Your task to perform on an android device: toggle priority inbox in the gmail app Image 0: 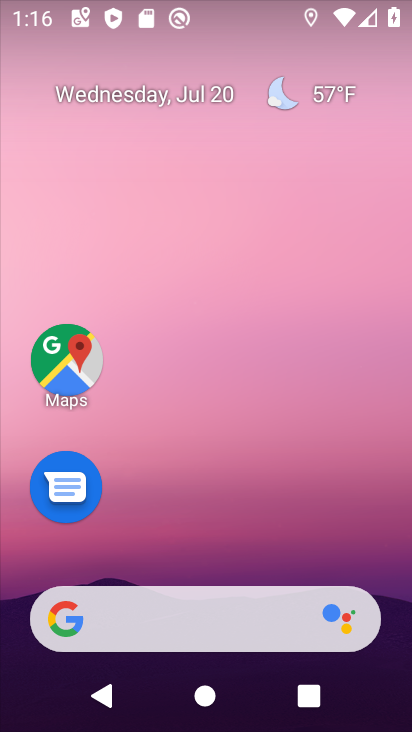
Step 0: drag from (177, 564) to (350, 5)
Your task to perform on an android device: toggle priority inbox in the gmail app Image 1: 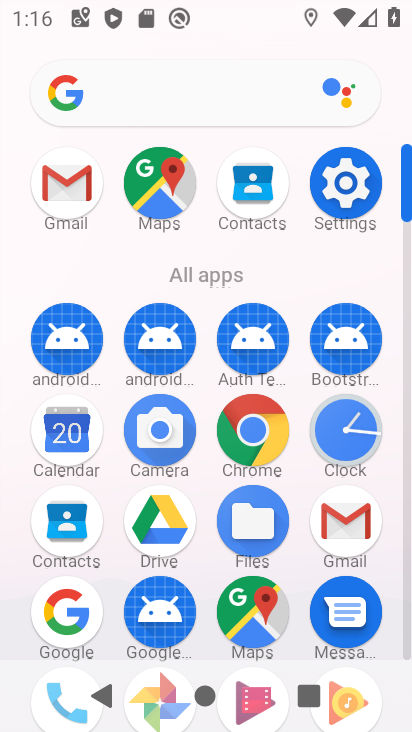
Step 1: click (61, 189)
Your task to perform on an android device: toggle priority inbox in the gmail app Image 2: 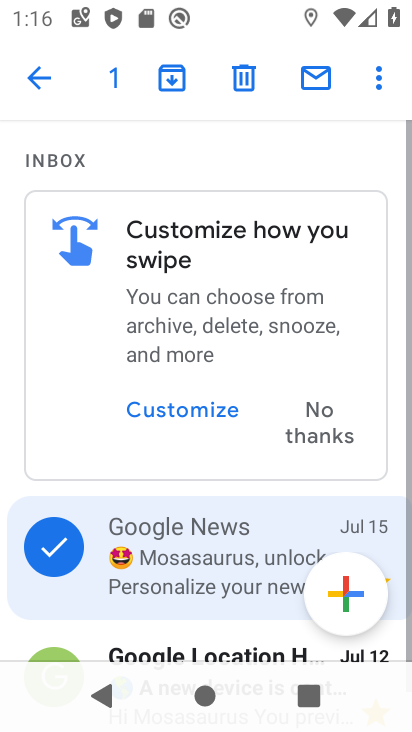
Step 2: click (34, 77)
Your task to perform on an android device: toggle priority inbox in the gmail app Image 3: 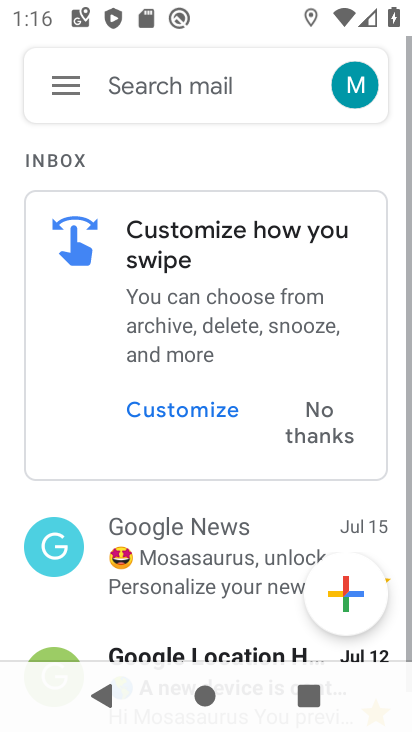
Step 3: click (55, 84)
Your task to perform on an android device: toggle priority inbox in the gmail app Image 4: 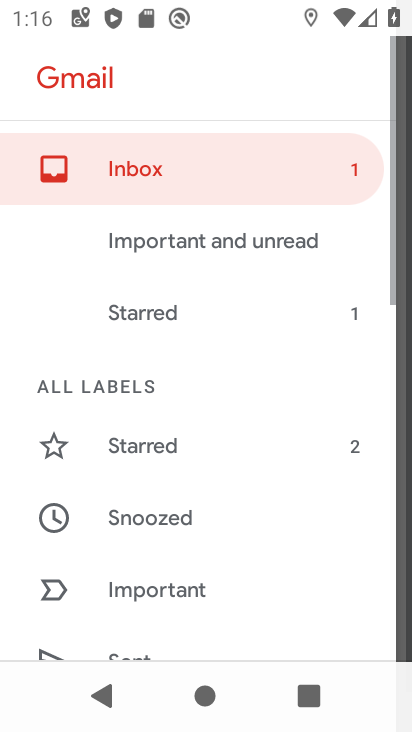
Step 4: drag from (182, 588) to (263, 3)
Your task to perform on an android device: toggle priority inbox in the gmail app Image 5: 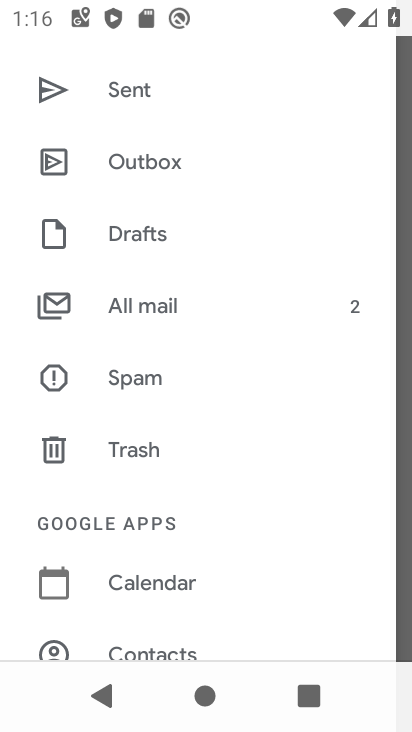
Step 5: drag from (182, 610) to (265, 92)
Your task to perform on an android device: toggle priority inbox in the gmail app Image 6: 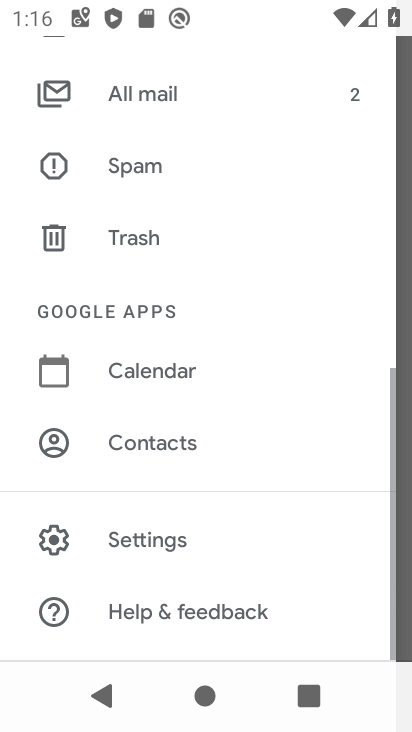
Step 6: click (185, 545)
Your task to perform on an android device: toggle priority inbox in the gmail app Image 7: 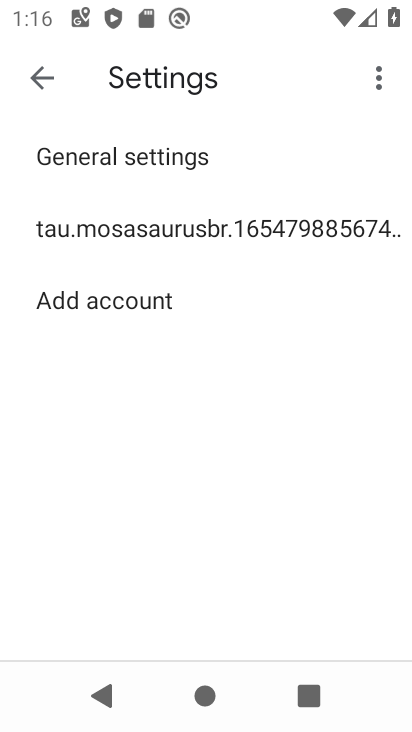
Step 7: click (168, 225)
Your task to perform on an android device: toggle priority inbox in the gmail app Image 8: 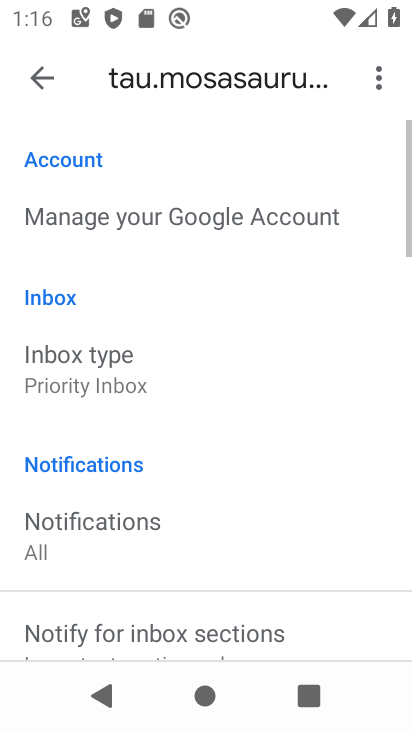
Step 8: click (115, 369)
Your task to perform on an android device: toggle priority inbox in the gmail app Image 9: 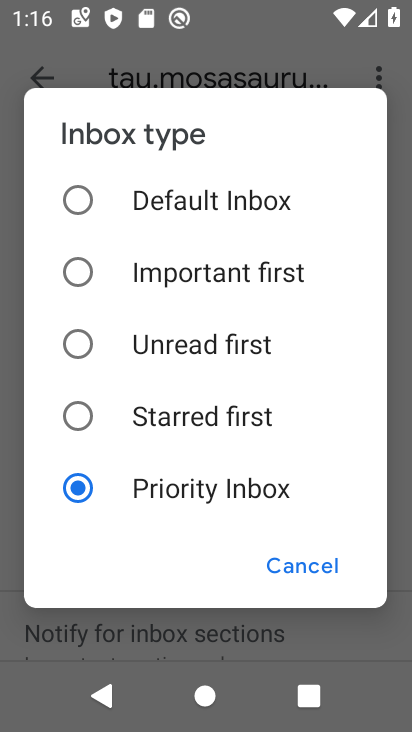
Step 9: click (72, 480)
Your task to perform on an android device: toggle priority inbox in the gmail app Image 10: 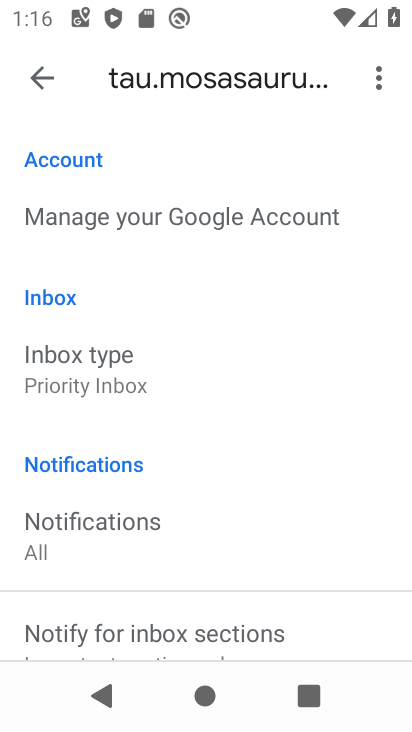
Step 10: task complete